Your task to perform on an android device: open wifi settings Image 0: 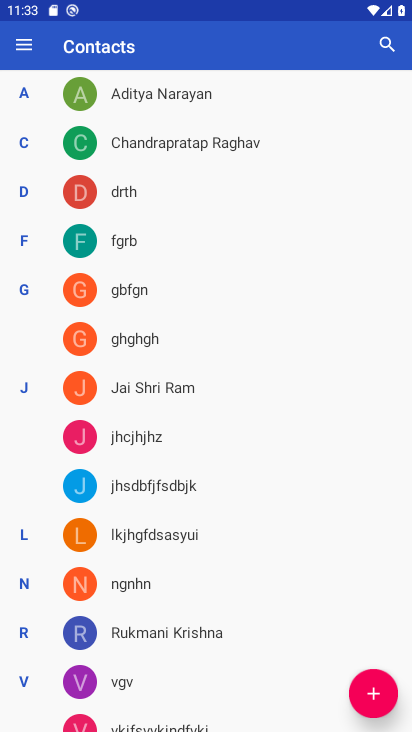
Step 0: press back button
Your task to perform on an android device: open wifi settings Image 1: 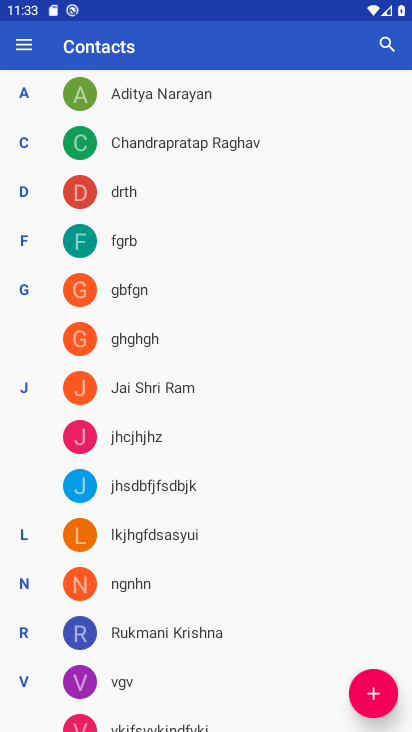
Step 1: press back button
Your task to perform on an android device: open wifi settings Image 2: 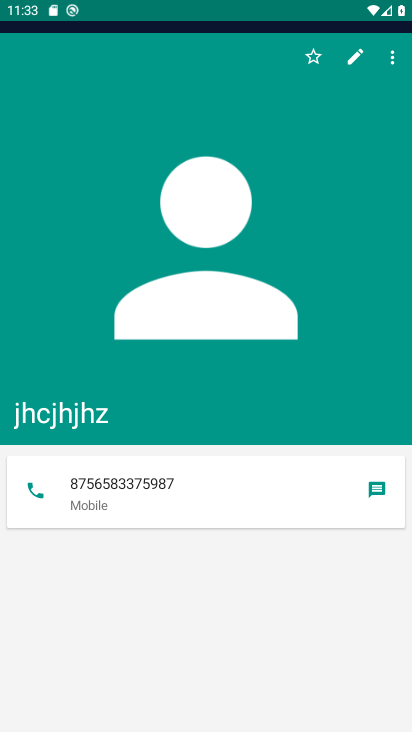
Step 2: press back button
Your task to perform on an android device: open wifi settings Image 3: 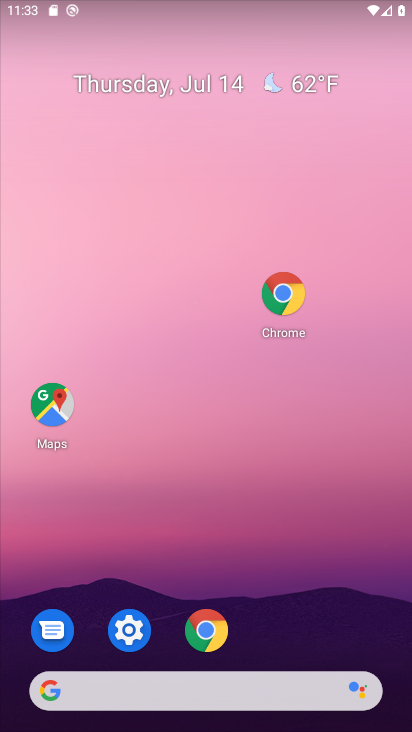
Step 3: drag from (274, 591) to (369, 16)
Your task to perform on an android device: open wifi settings Image 4: 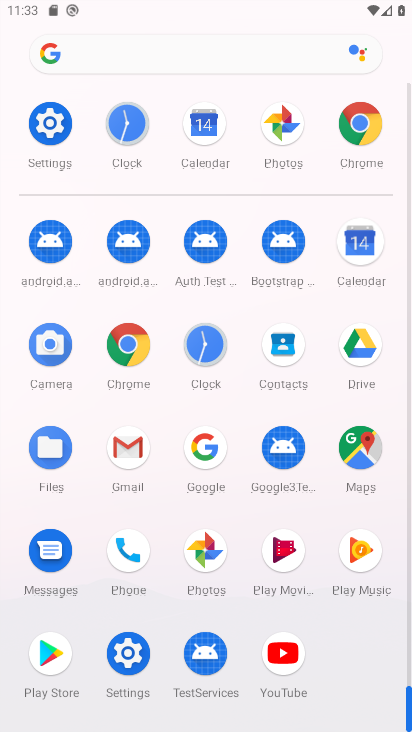
Step 4: click (59, 141)
Your task to perform on an android device: open wifi settings Image 5: 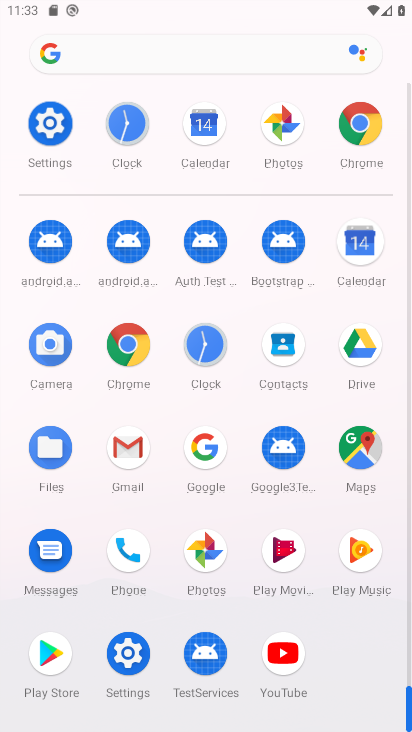
Step 5: click (56, 140)
Your task to perform on an android device: open wifi settings Image 6: 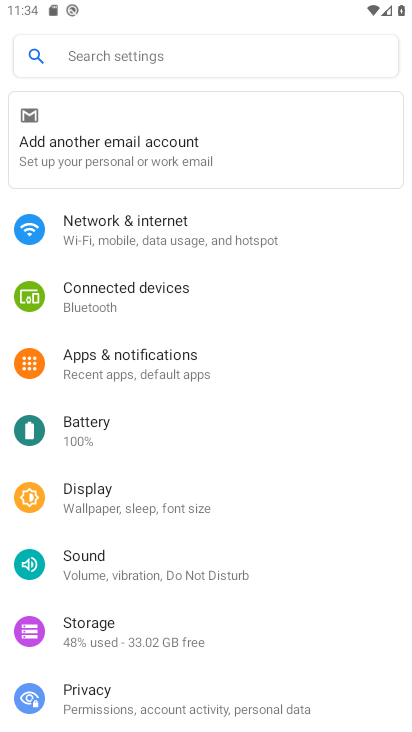
Step 6: click (129, 234)
Your task to perform on an android device: open wifi settings Image 7: 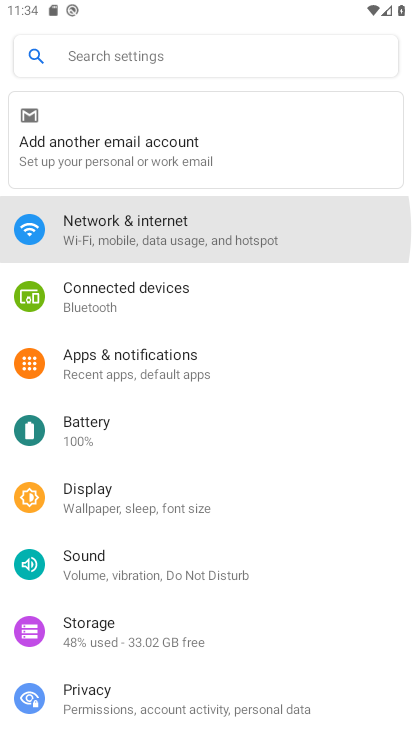
Step 7: click (135, 224)
Your task to perform on an android device: open wifi settings Image 8: 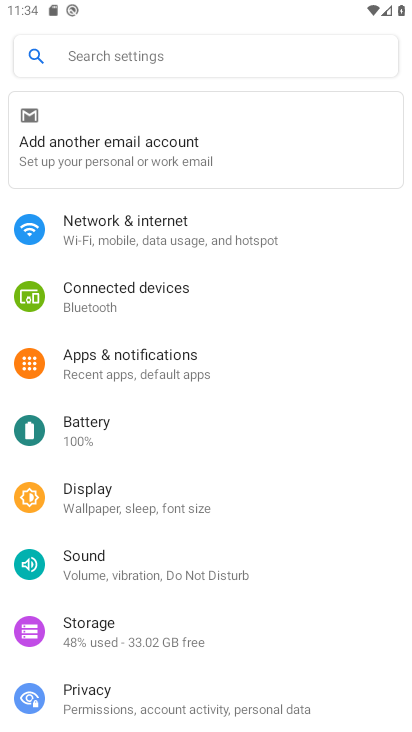
Step 8: click (123, 231)
Your task to perform on an android device: open wifi settings Image 9: 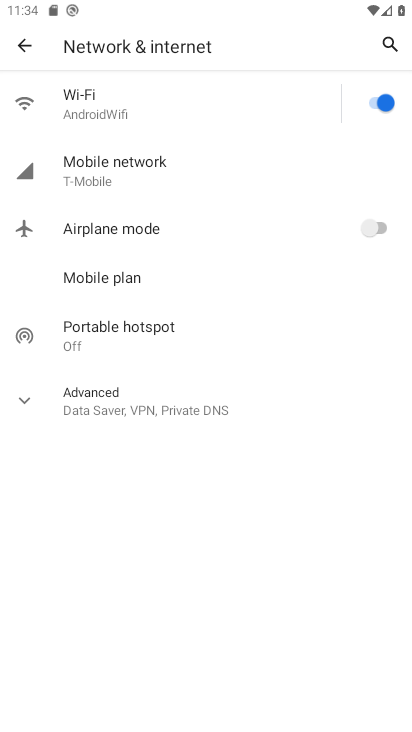
Step 9: task complete